Your task to perform on an android device: toggle location history Image 0: 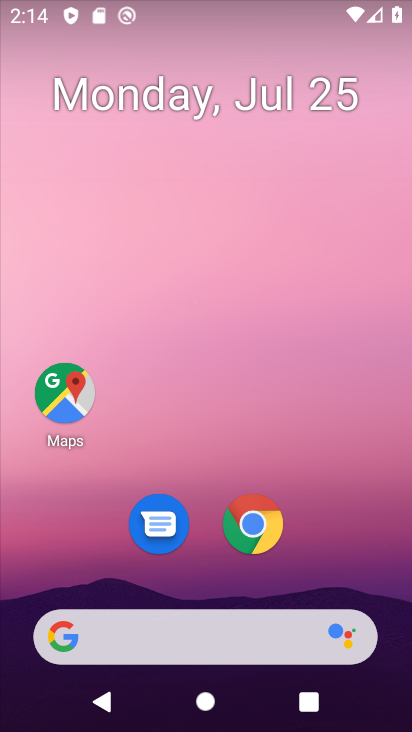
Step 0: press home button
Your task to perform on an android device: toggle location history Image 1: 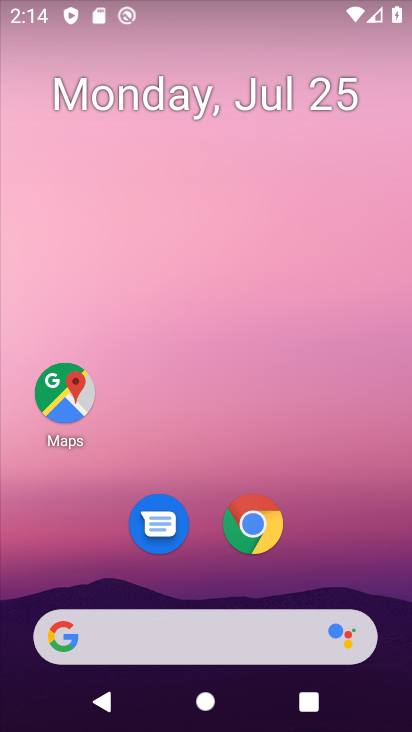
Step 1: drag from (187, 639) to (338, 118)
Your task to perform on an android device: toggle location history Image 2: 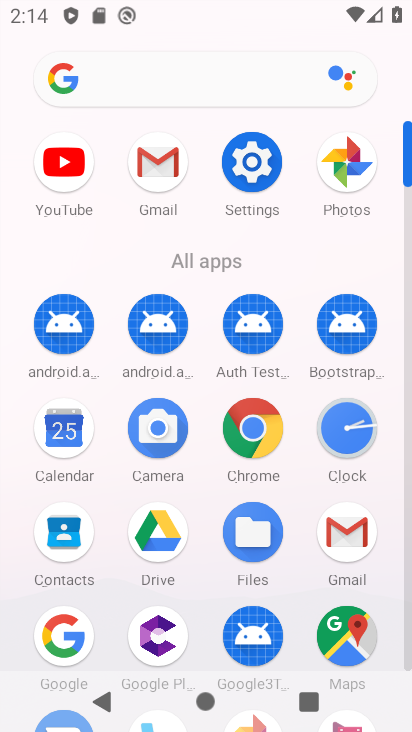
Step 2: click (244, 162)
Your task to perform on an android device: toggle location history Image 3: 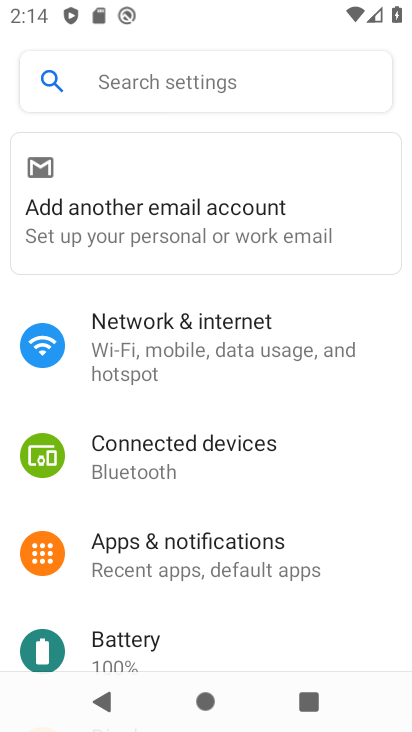
Step 3: drag from (212, 622) to (334, 45)
Your task to perform on an android device: toggle location history Image 4: 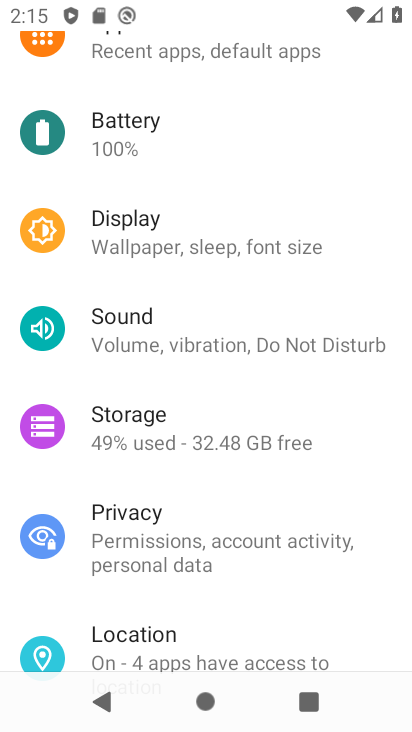
Step 4: click (163, 634)
Your task to perform on an android device: toggle location history Image 5: 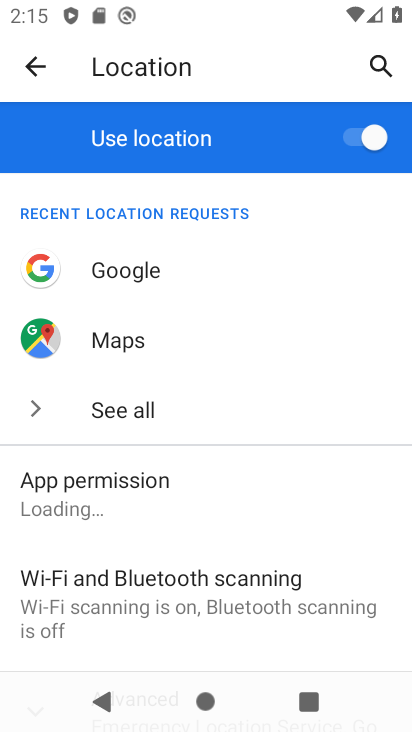
Step 5: drag from (209, 535) to (306, 83)
Your task to perform on an android device: toggle location history Image 6: 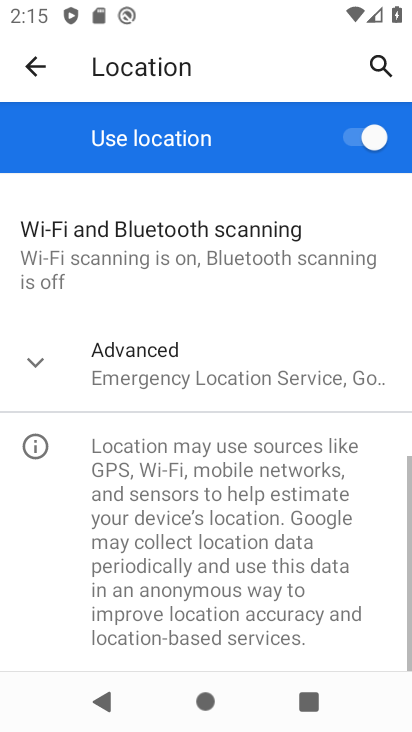
Step 6: click (161, 362)
Your task to perform on an android device: toggle location history Image 7: 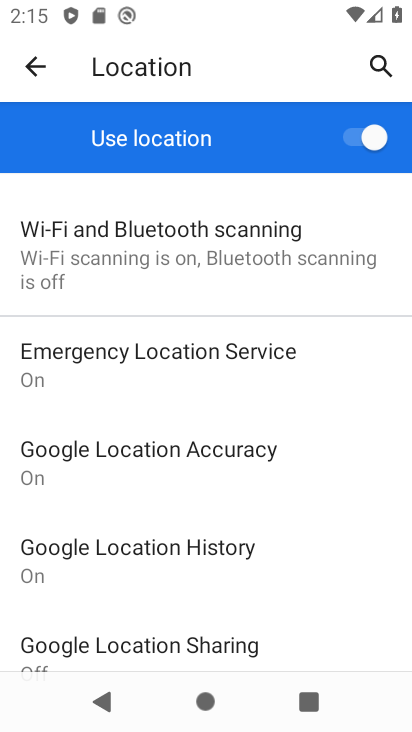
Step 7: click (202, 559)
Your task to perform on an android device: toggle location history Image 8: 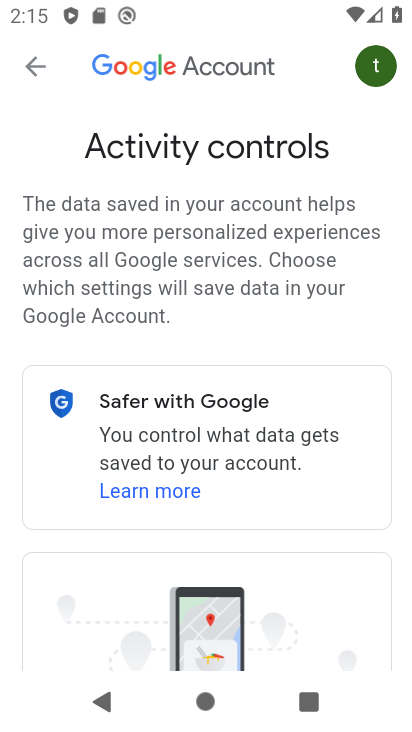
Step 8: drag from (133, 560) to (284, 147)
Your task to perform on an android device: toggle location history Image 9: 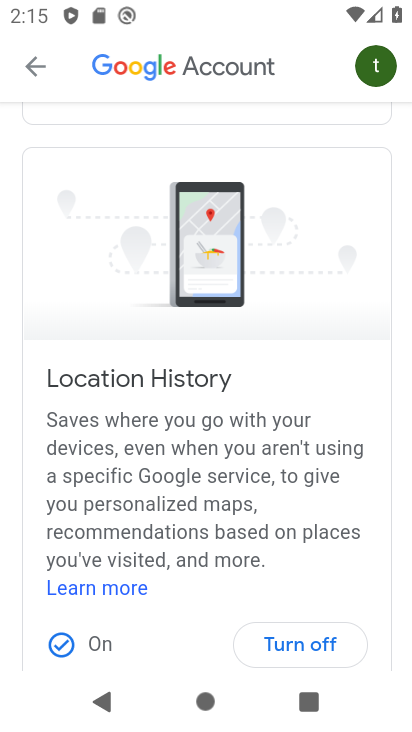
Step 9: drag from (192, 605) to (295, 228)
Your task to perform on an android device: toggle location history Image 10: 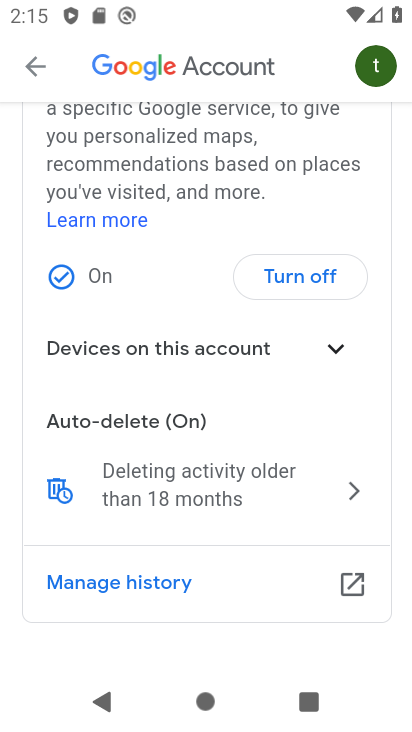
Step 10: click (318, 271)
Your task to perform on an android device: toggle location history Image 11: 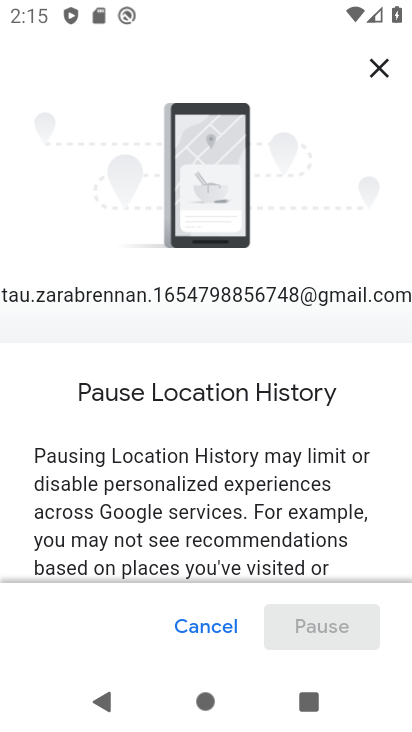
Step 11: drag from (222, 527) to (320, 42)
Your task to perform on an android device: toggle location history Image 12: 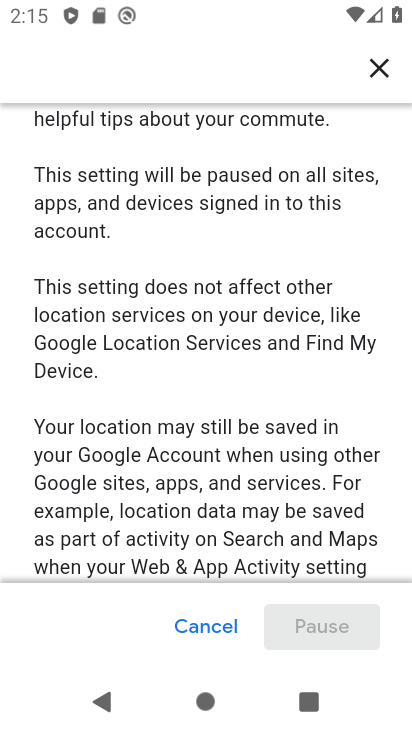
Step 12: drag from (269, 537) to (351, 90)
Your task to perform on an android device: toggle location history Image 13: 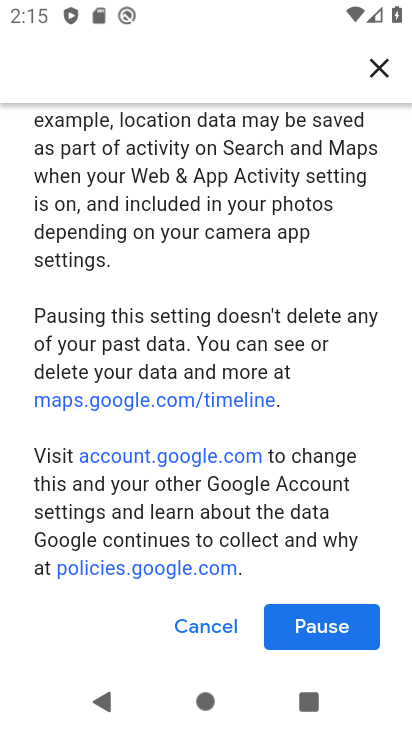
Step 13: drag from (254, 525) to (341, 121)
Your task to perform on an android device: toggle location history Image 14: 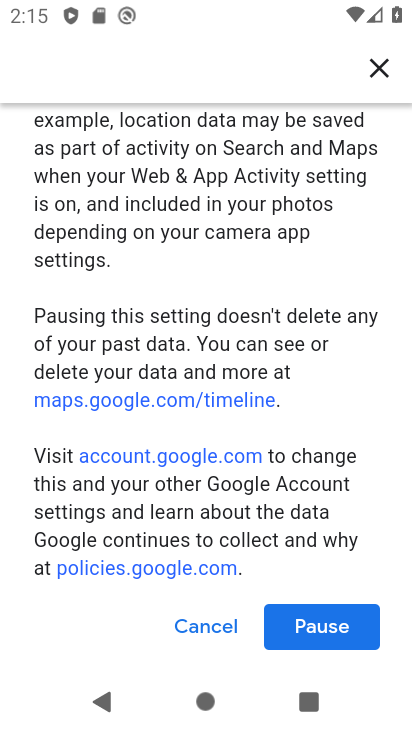
Step 14: click (317, 628)
Your task to perform on an android device: toggle location history Image 15: 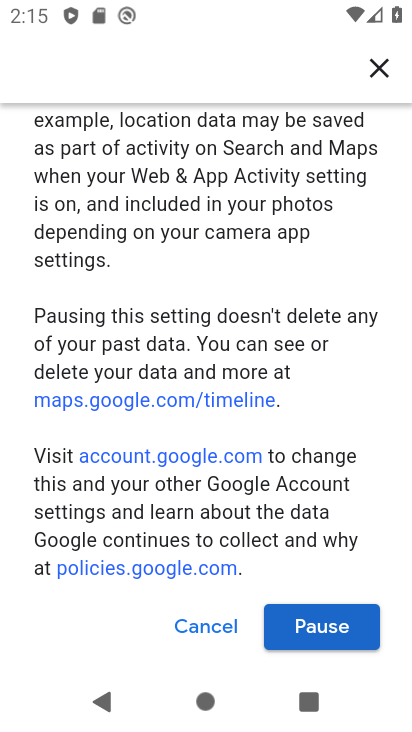
Step 15: click (334, 629)
Your task to perform on an android device: toggle location history Image 16: 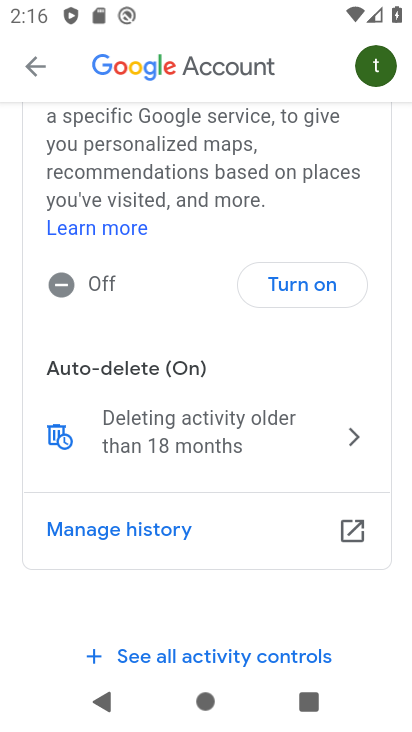
Step 16: task complete